Your task to perform on an android device: What's the weather going to be this weekend? Image 0: 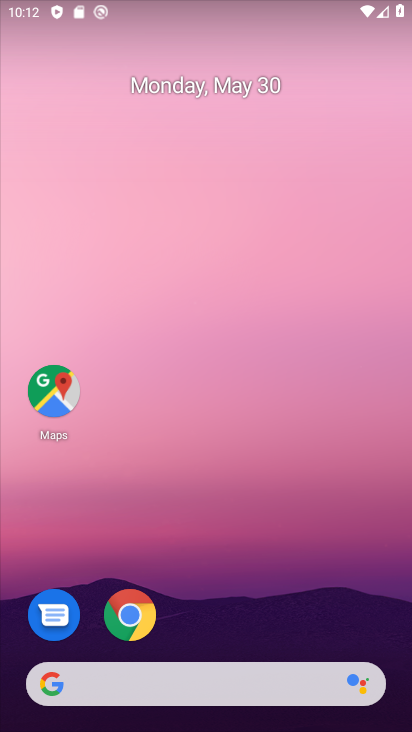
Step 0: drag from (211, 702) to (247, 177)
Your task to perform on an android device: What's the weather going to be this weekend? Image 1: 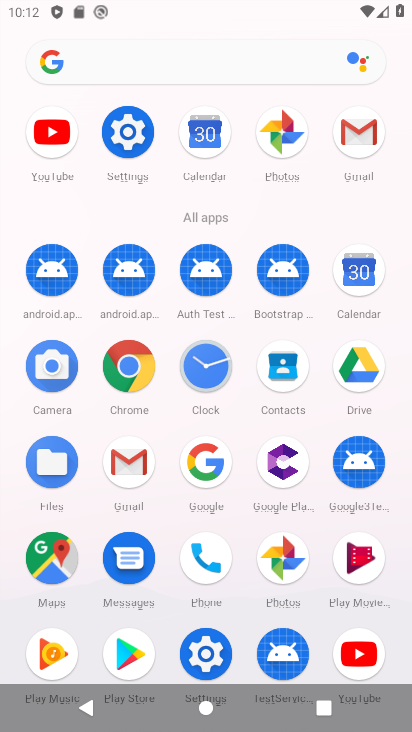
Step 1: click (203, 465)
Your task to perform on an android device: What's the weather going to be this weekend? Image 2: 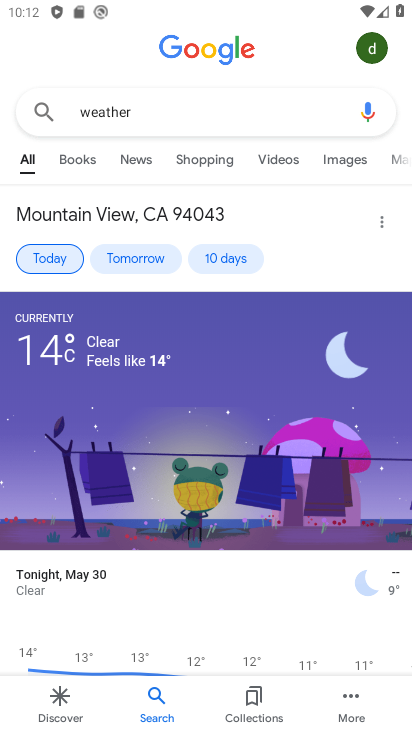
Step 2: click (222, 260)
Your task to perform on an android device: What's the weather going to be this weekend? Image 3: 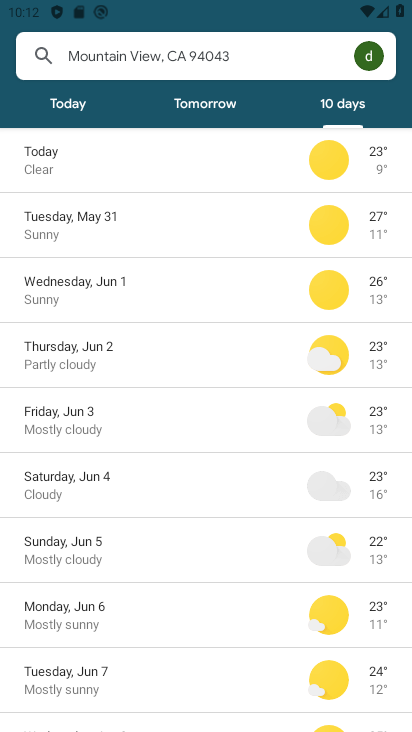
Step 3: click (64, 477)
Your task to perform on an android device: What's the weather going to be this weekend? Image 4: 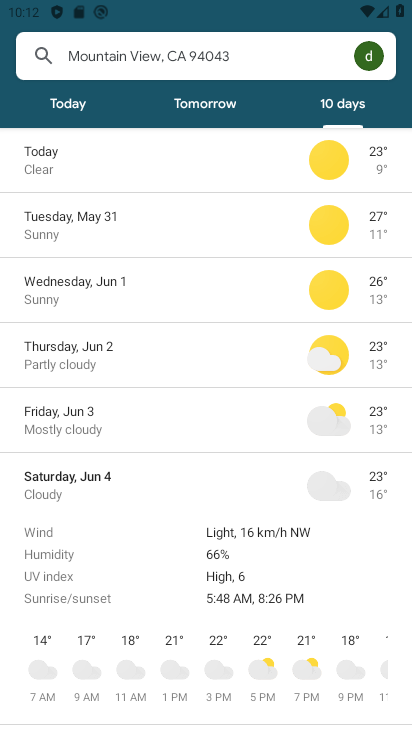
Step 4: task complete